Your task to perform on an android device: turn off javascript in the chrome app Image 0: 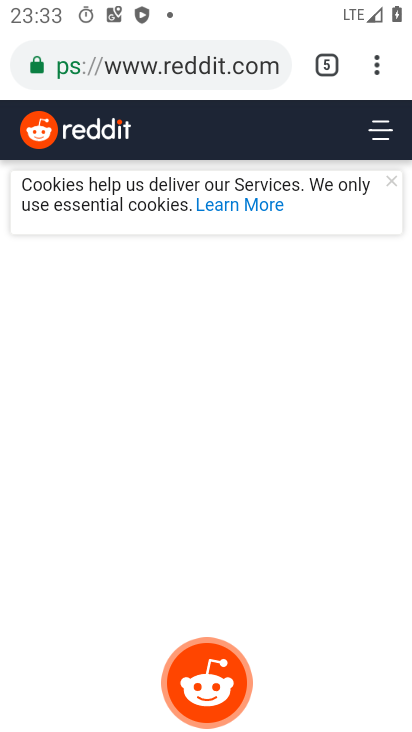
Step 0: press home button
Your task to perform on an android device: turn off javascript in the chrome app Image 1: 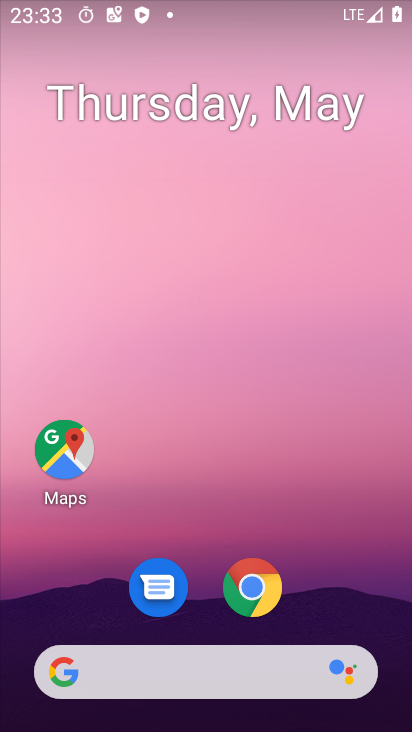
Step 1: click (250, 590)
Your task to perform on an android device: turn off javascript in the chrome app Image 2: 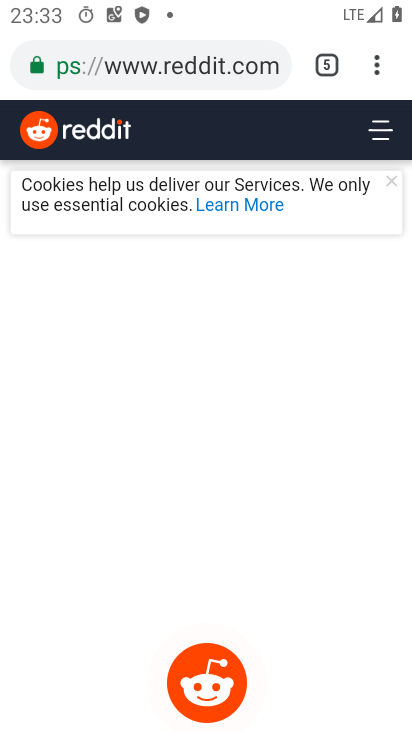
Step 2: click (378, 71)
Your task to perform on an android device: turn off javascript in the chrome app Image 3: 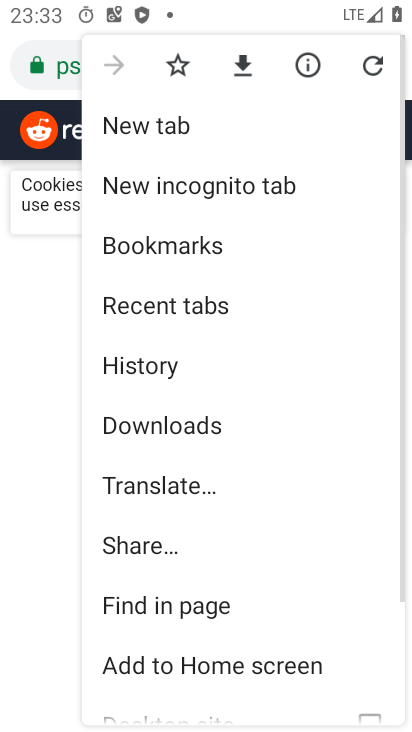
Step 3: drag from (214, 569) to (188, 156)
Your task to perform on an android device: turn off javascript in the chrome app Image 4: 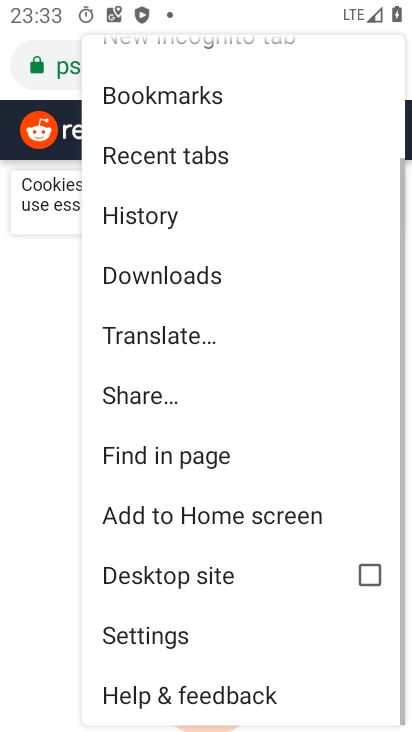
Step 4: click (136, 638)
Your task to perform on an android device: turn off javascript in the chrome app Image 5: 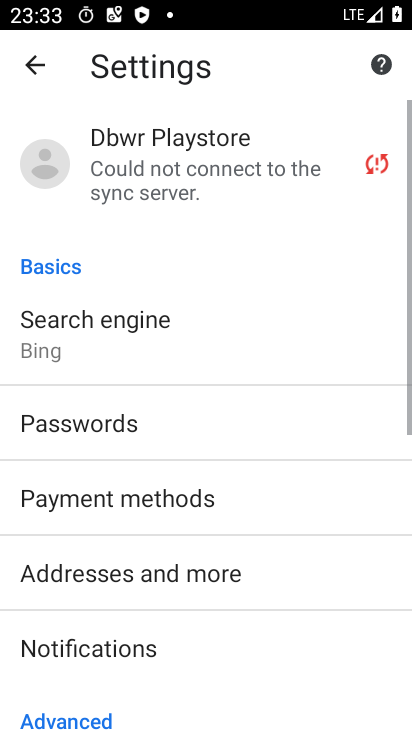
Step 5: drag from (258, 652) to (199, 245)
Your task to perform on an android device: turn off javascript in the chrome app Image 6: 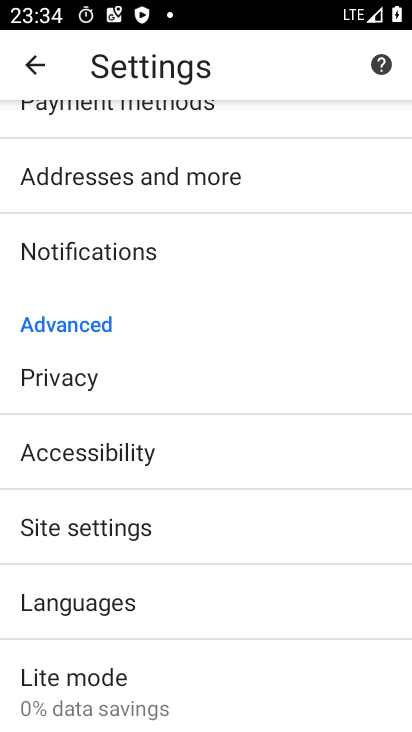
Step 6: click (134, 527)
Your task to perform on an android device: turn off javascript in the chrome app Image 7: 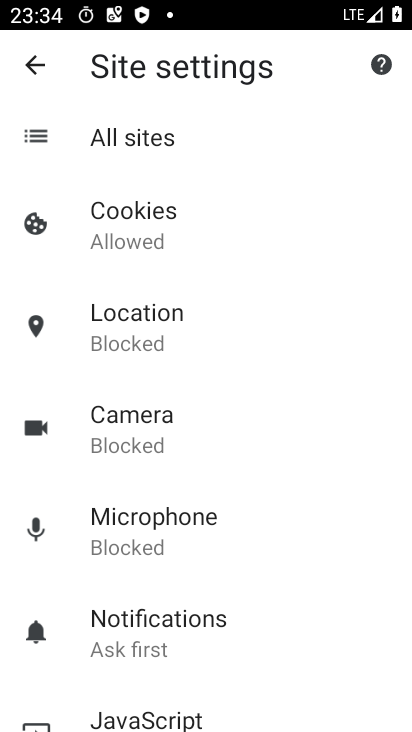
Step 7: drag from (290, 638) to (270, 371)
Your task to perform on an android device: turn off javascript in the chrome app Image 8: 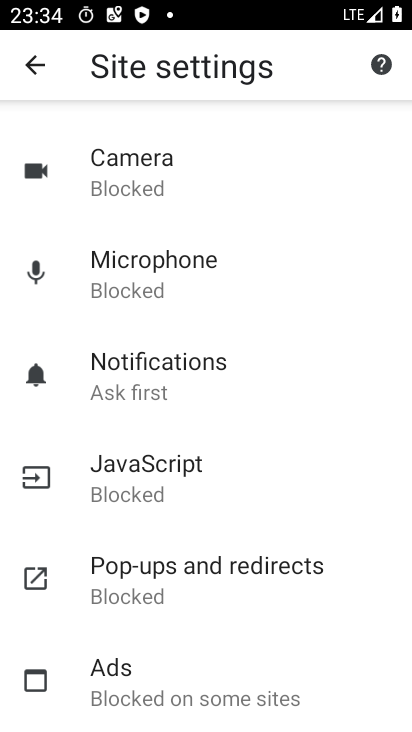
Step 8: click (157, 491)
Your task to perform on an android device: turn off javascript in the chrome app Image 9: 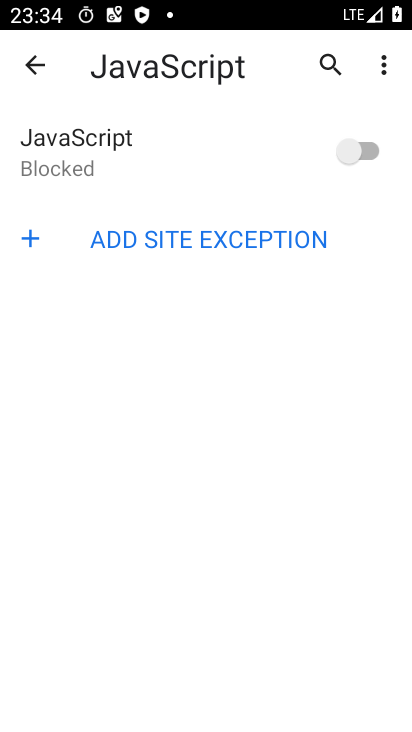
Step 9: task complete